Your task to perform on an android device: open device folders in google photos Image 0: 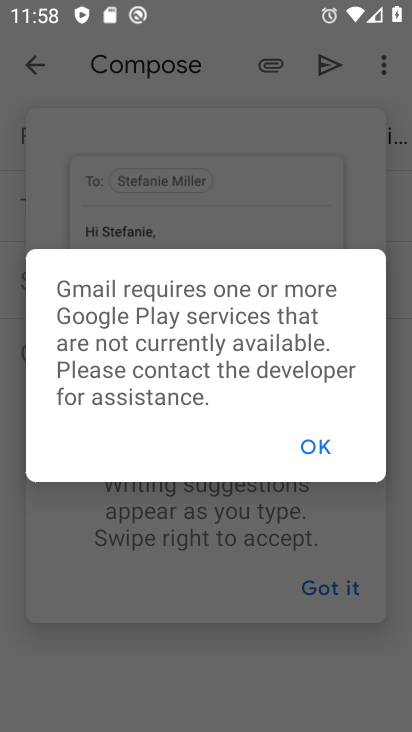
Step 0: press home button
Your task to perform on an android device: open device folders in google photos Image 1: 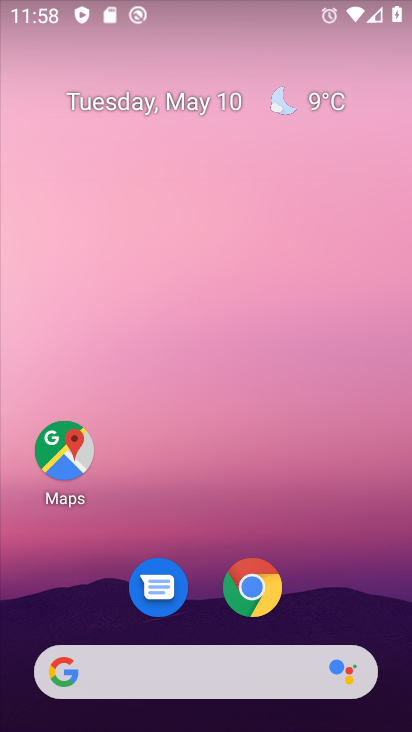
Step 1: drag from (340, 602) to (325, 2)
Your task to perform on an android device: open device folders in google photos Image 2: 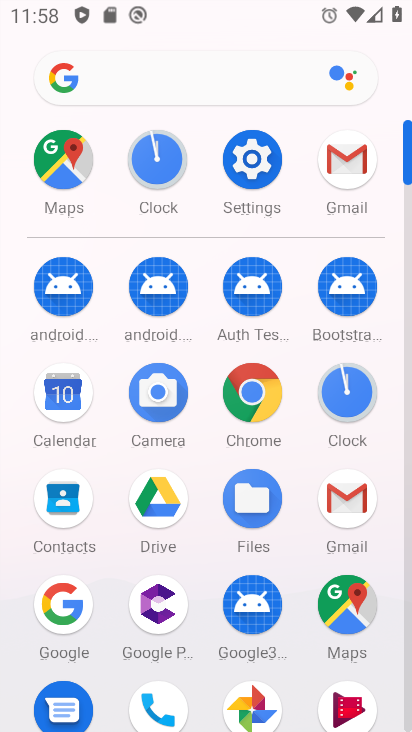
Step 2: click (251, 705)
Your task to perform on an android device: open device folders in google photos Image 3: 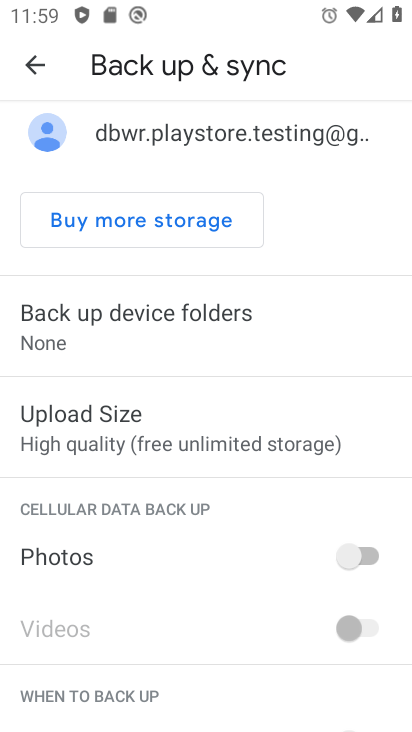
Step 3: click (42, 57)
Your task to perform on an android device: open device folders in google photos Image 4: 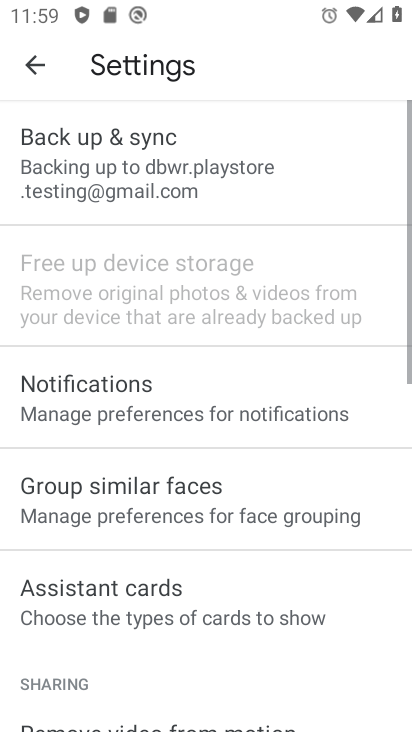
Step 4: click (41, 57)
Your task to perform on an android device: open device folders in google photos Image 5: 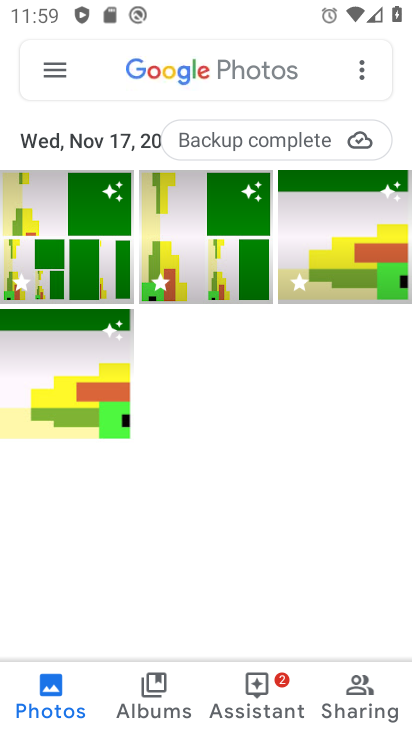
Step 5: click (50, 69)
Your task to perform on an android device: open device folders in google photos Image 6: 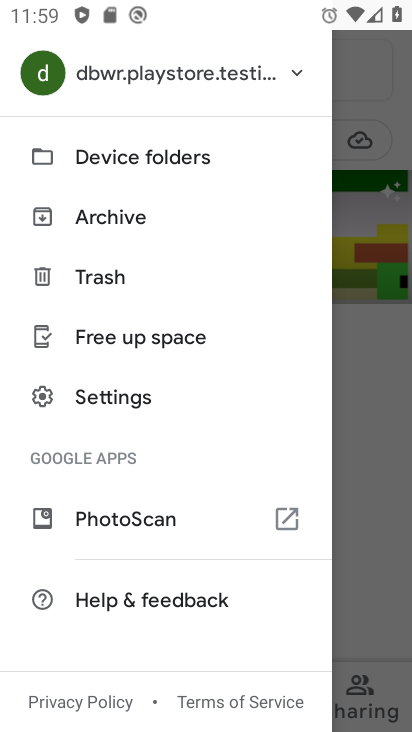
Step 6: click (99, 154)
Your task to perform on an android device: open device folders in google photos Image 7: 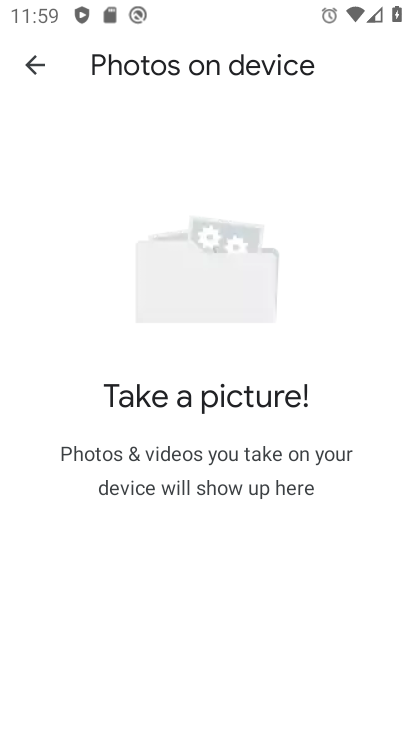
Step 7: task complete